Your task to perform on an android device: delete location history Image 0: 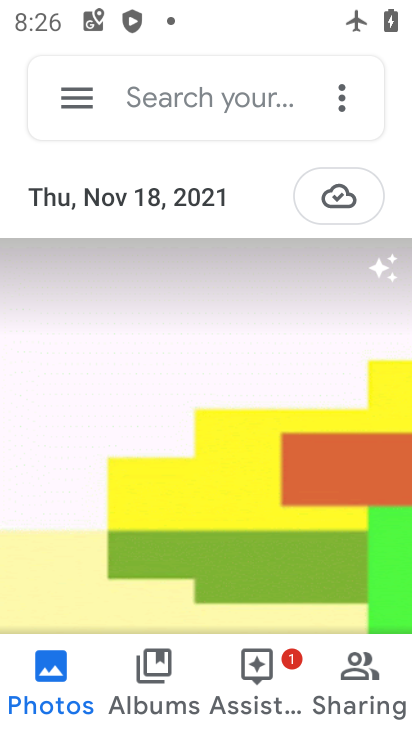
Step 0: press home button
Your task to perform on an android device: delete location history Image 1: 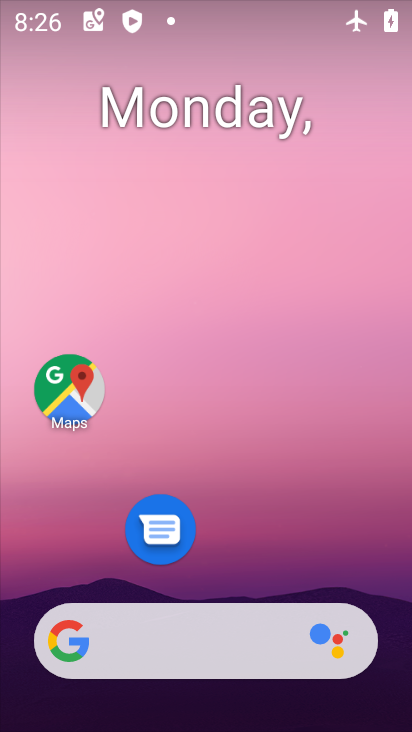
Step 1: click (81, 412)
Your task to perform on an android device: delete location history Image 2: 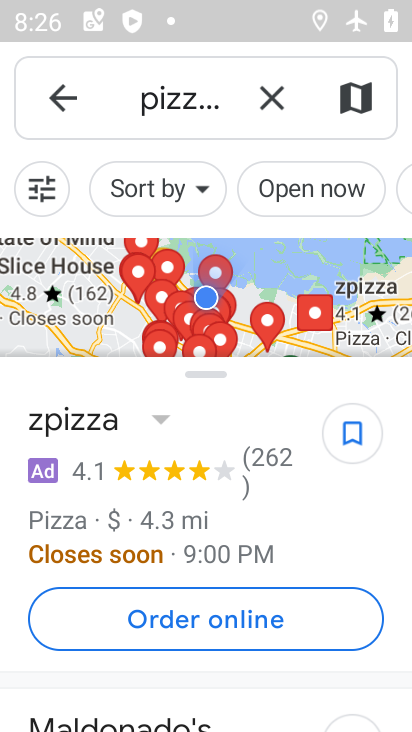
Step 2: click (52, 112)
Your task to perform on an android device: delete location history Image 3: 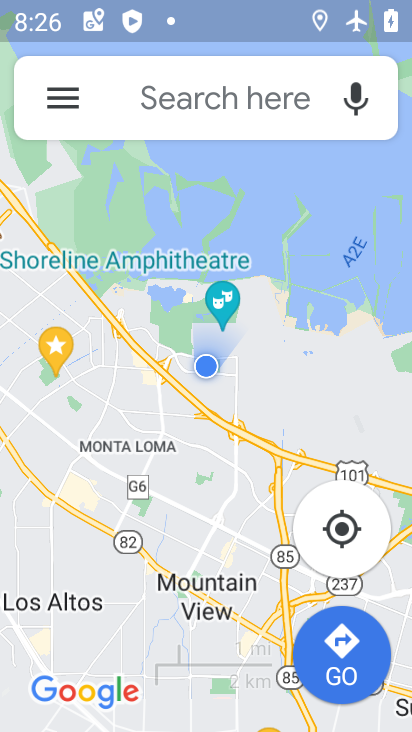
Step 3: click (52, 112)
Your task to perform on an android device: delete location history Image 4: 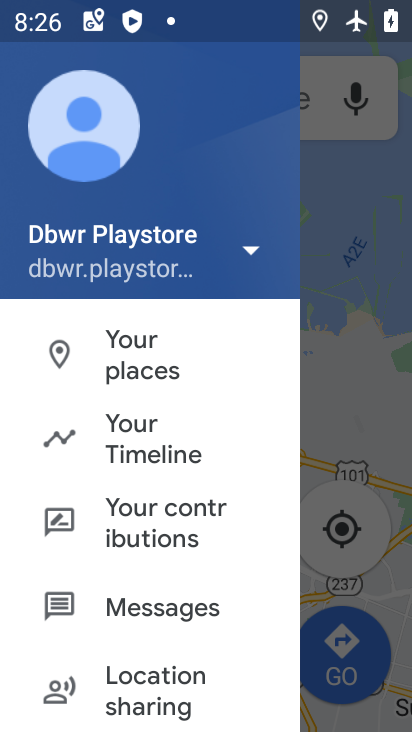
Step 4: click (134, 425)
Your task to perform on an android device: delete location history Image 5: 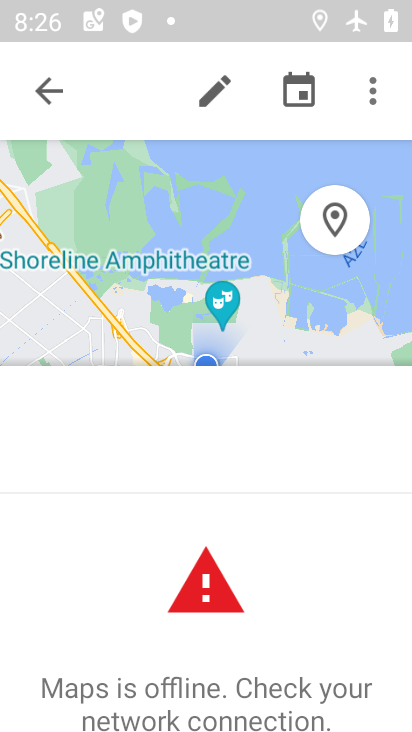
Step 5: click (375, 91)
Your task to perform on an android device: delete location history Image 6: 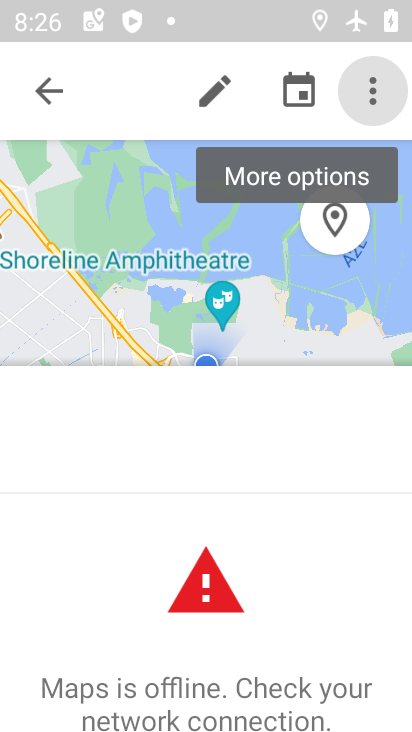
Step 6: click (375, 91)
Your task to perform on an android device: delete location history Image 7: 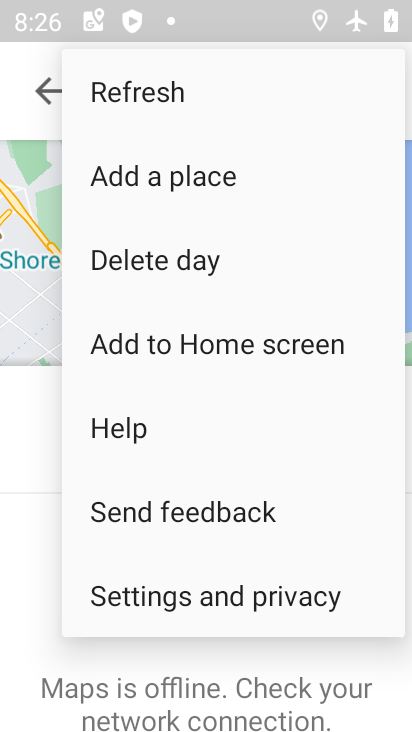
Step 7: drag from (201, 555) to (268, 204)
Your task to perform on an android device: delete location history Image 8: 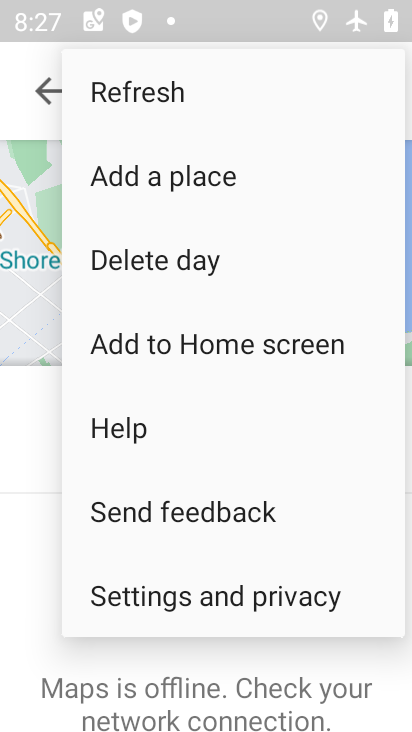
Step 8: click (161, 574)
Your task to perform on an android device: delete location history Image 9: 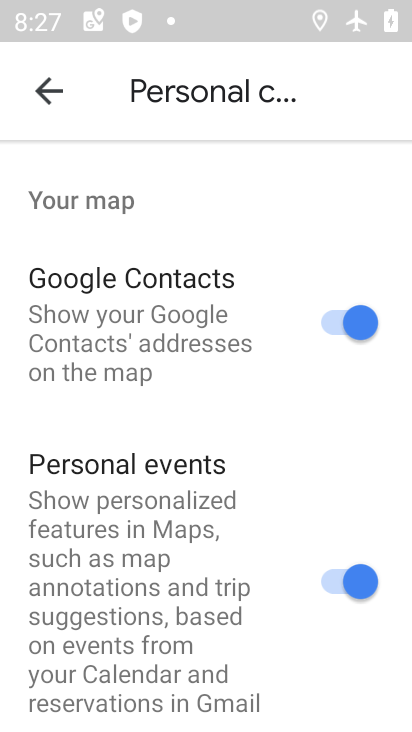
Step 9: drag from (161, 626) to (234, 227)
Your task to perform on an android device: delete location history Image 10: 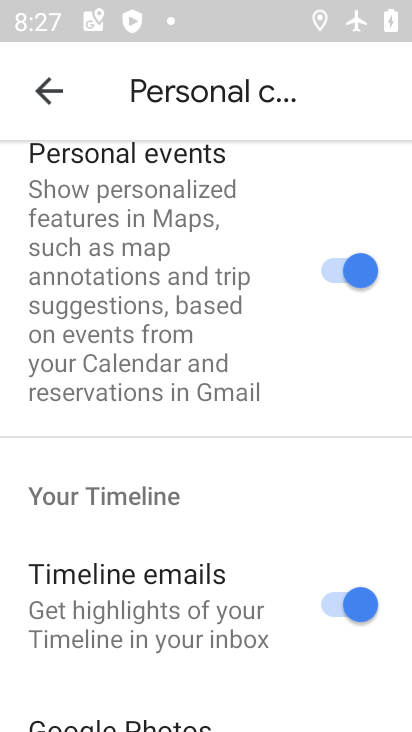
Step 10: drag from (223, 625) to (229, 188)
Your task to perform on an android device: delete location history Image 11: 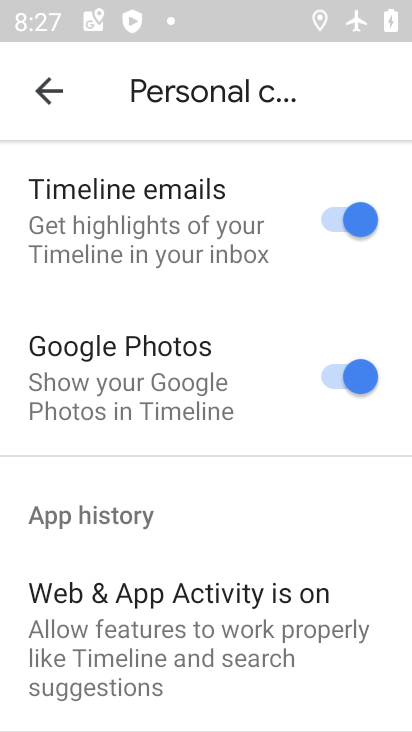
Step 11: drag from (217, 564) to (241, 223)
Your task to perform on an android device: delete location history Image 12: 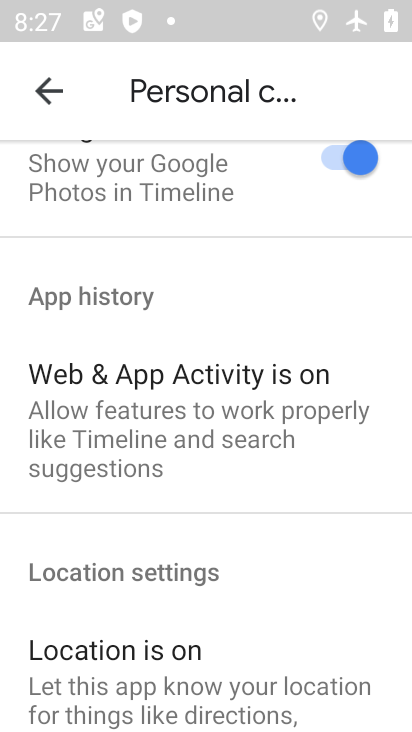
Step 12: drag from (223, 684) to (233, 265)
Your task to perform on an android device: delete location history Image 13: 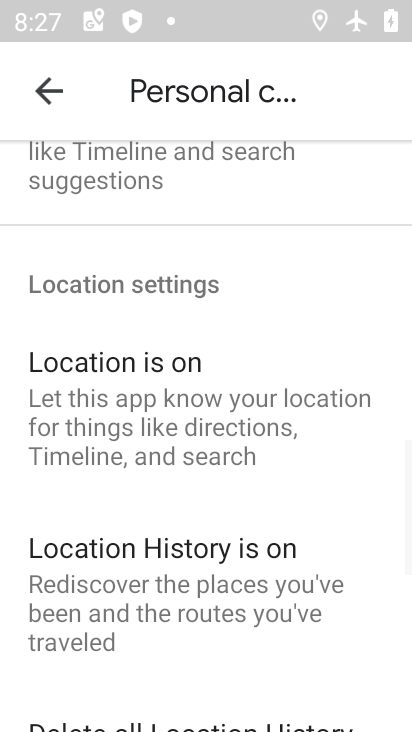
Step 13: drag from (206, 671) to (218, 383)
Your task to perform on an android device: delete location history Image 14: 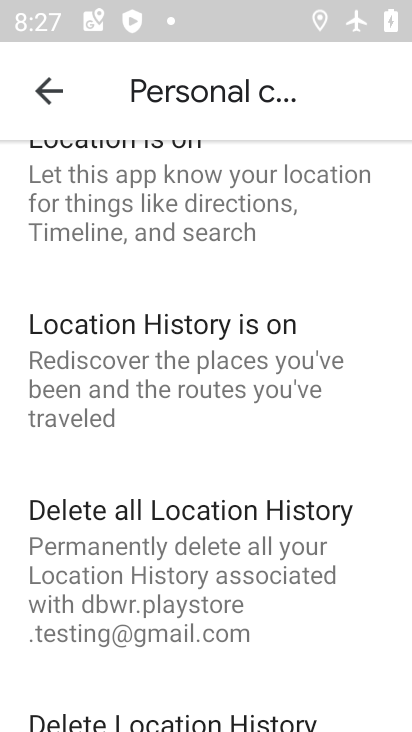
Step 14: click (199, 560)
Your task to perform on an android device: delete location history Image 15: 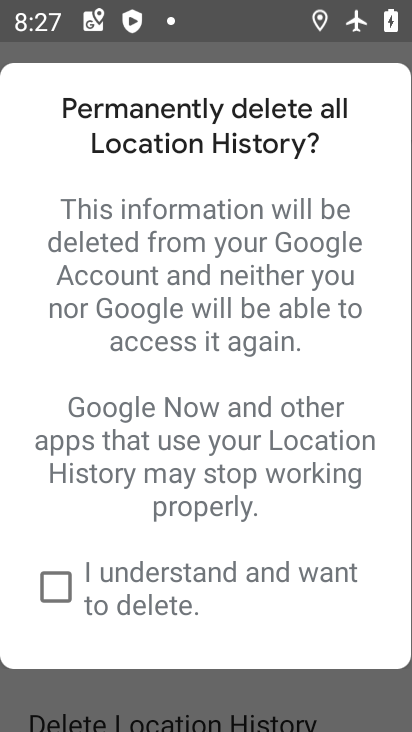
Step 15: click (135, 583)
Your task to perform on an android device: delete location history Image 16: 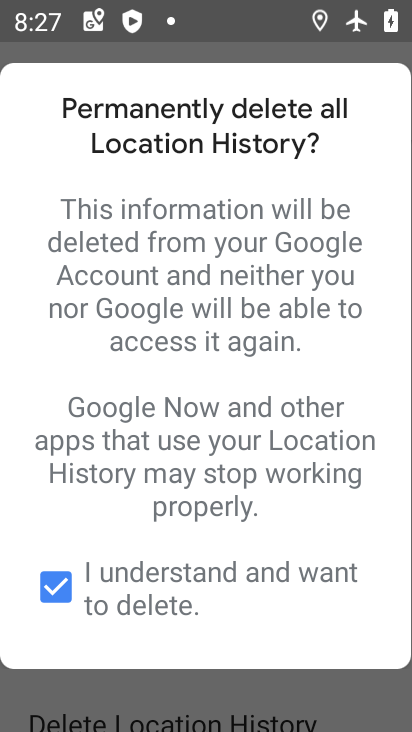
Step 16: drag from (218, 625) to (264, 296)
Your task to perform on an android device: delete location history Image 17: 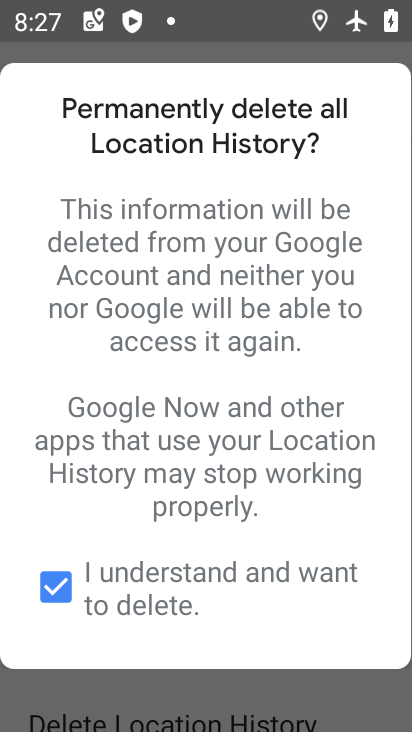
Step 17: click (88, 661)
Your task to perform on an android device: delete location history Image 18: 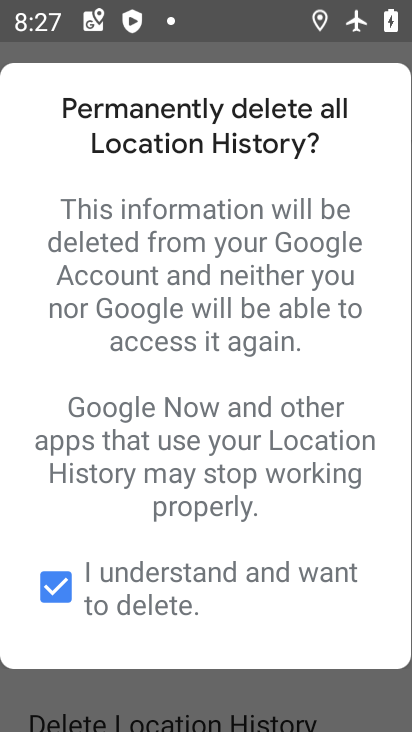
Step 18: click (87, 673)
Your task to perform on an android device: delete location history Image 19: 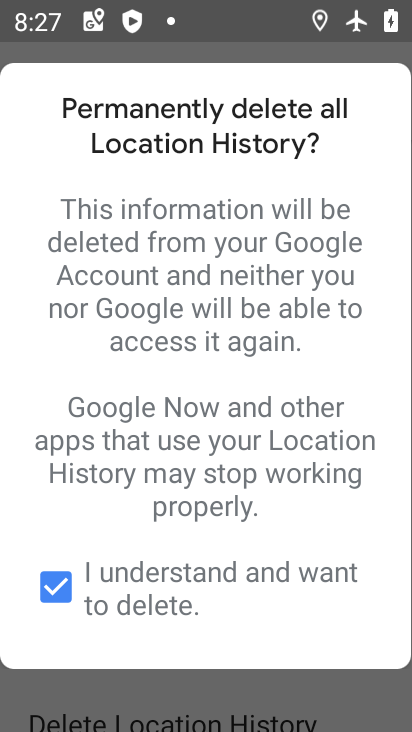
Step 19: click (323, 676)
Your task to perform on an android device: delete location history Image 20: 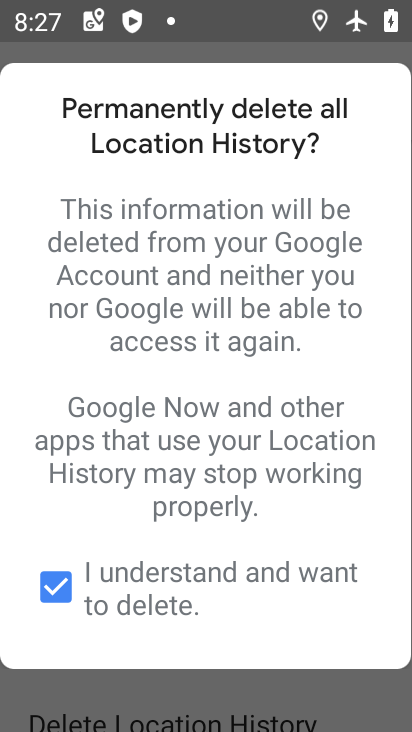
Step 20: click (277, 681)
Your task to perform on an android device: delete location history Image 21: 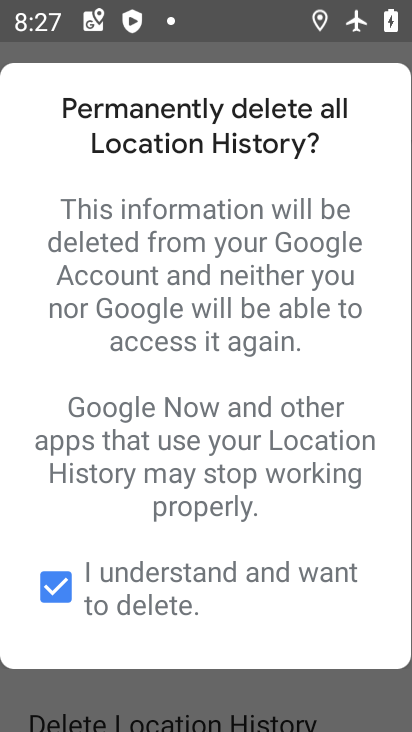
Step 21: click (174, 680)
Your task to perform on an android device: delete location history Image 22: 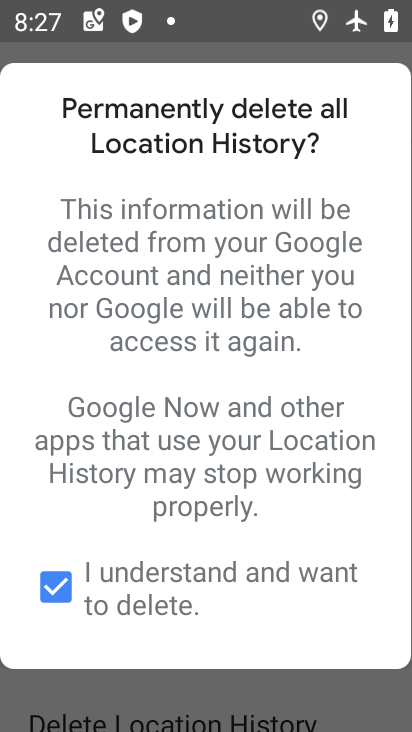
Step 22: click (71, 672)
Your task to perform on an android device: delete location history Image 23: 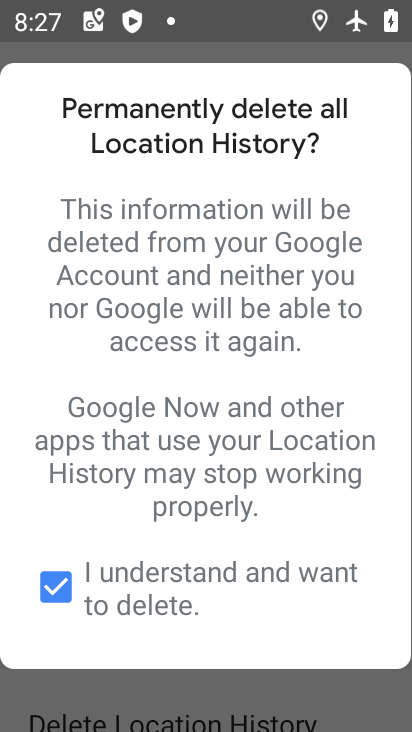
Step 23: click (26, 662)
Your task to perform on an android device: delete location history Image 24: 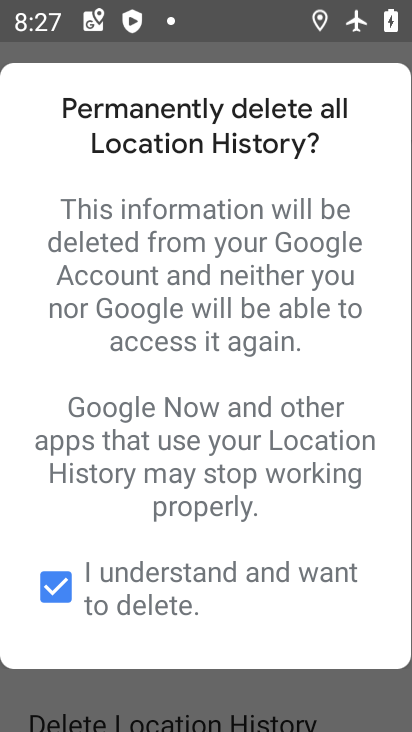
Step 24: drag from (219, 663) to (235, 363)
Your task to perform on an android device: delete location history Image 25: 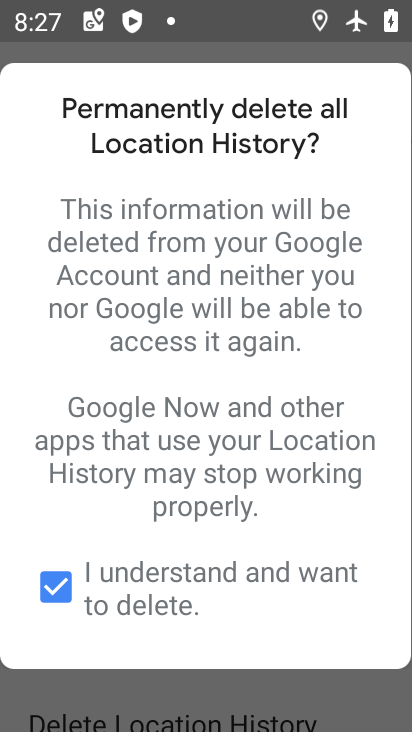
Step 25: click (340, 686)
Your task to perform on an android device: delete location history Image 26: 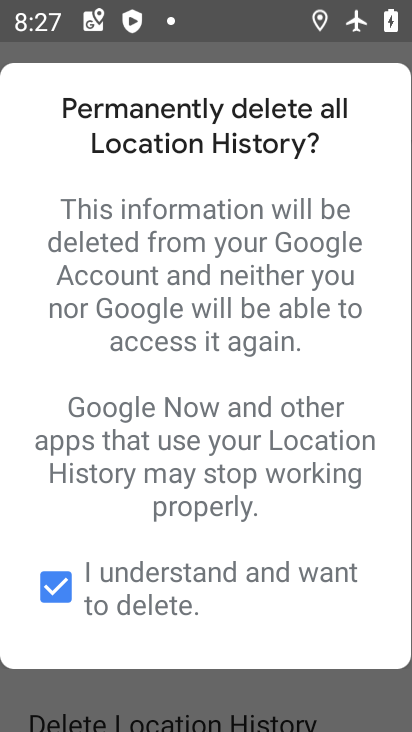
Step 26: click (368, 648)
Your task to perform on an android device: delete location history Image 27: 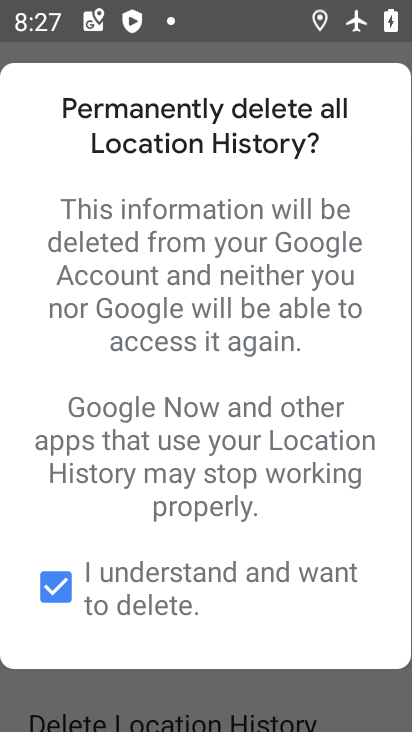
Step 27: click (345, 644)
Your task to perform on an android device: delete location history Image 28: 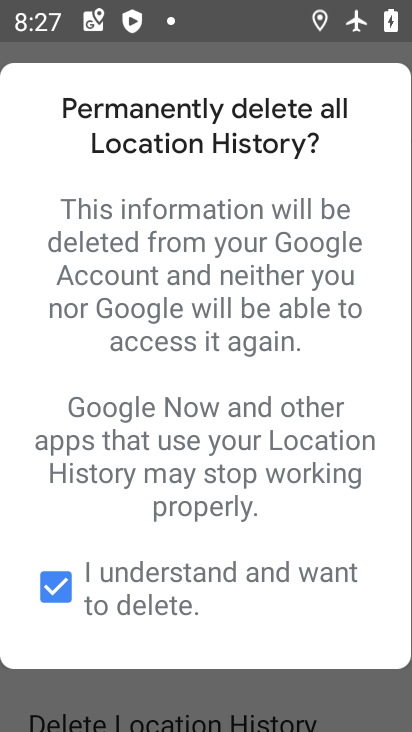
Step 28: click (281, 665)
Your task to perform on an android device: delete location history Image 29: 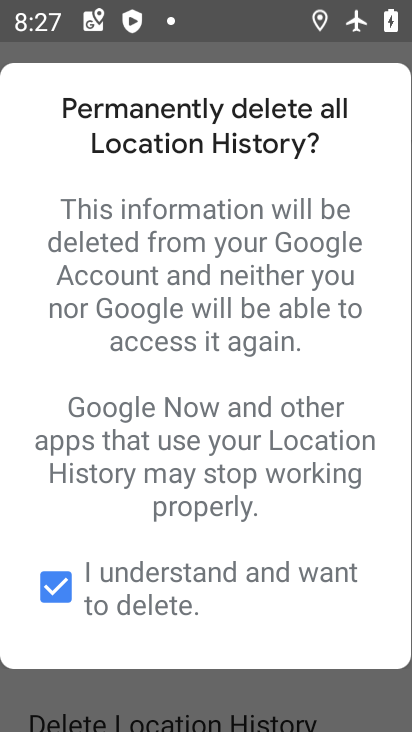
Step 29: click (235, 658)
Your task to perform on an android device: delete location history Image 30: 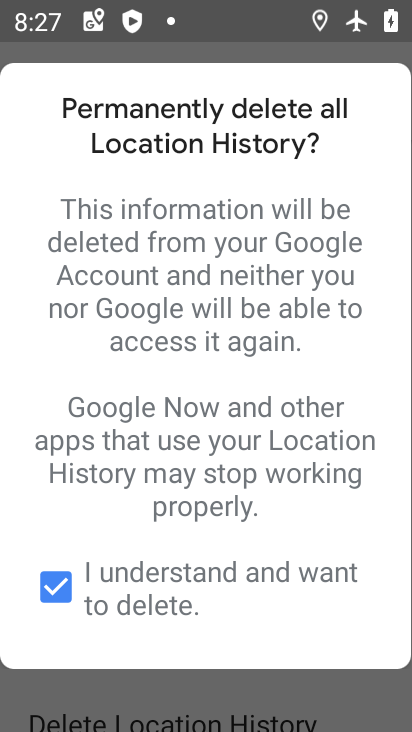
Step 30: click (152, 655)
Your task to perform on an android device: delete location history Image 31: 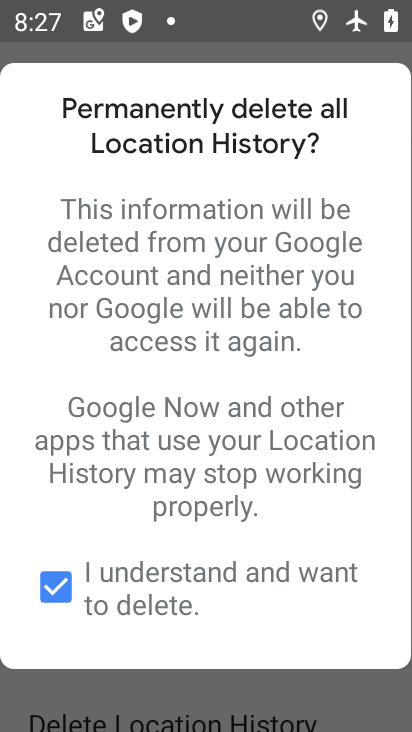
Step 31: click (77, 655)
Your task to perform on an android device: delete location history Image 32: 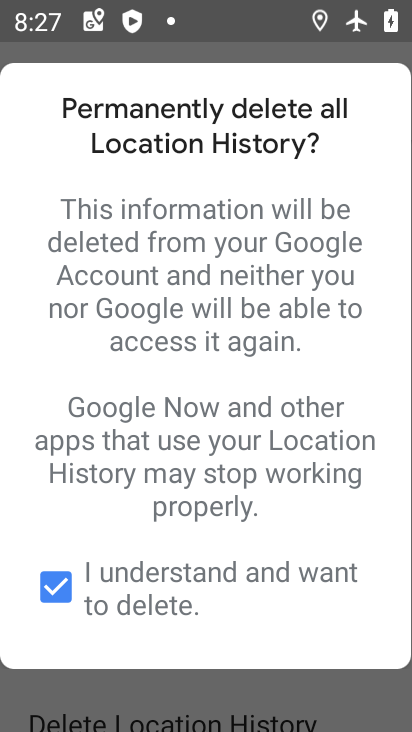
Step 32: click (9, 655)
Your task to perform on an android device: delete location history Image 33: 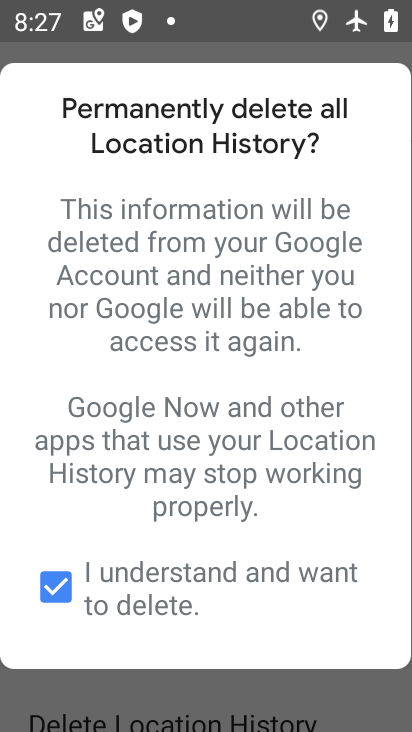
Step 33: click (42, 665)
Your task to perform on an android device: delete location history Image 34: 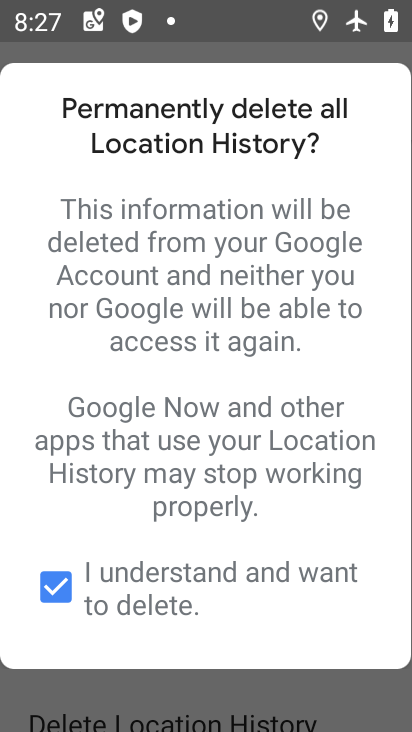
Step 34: click (61, 665)
Your task to perform on an android device: delete location history Image 35: 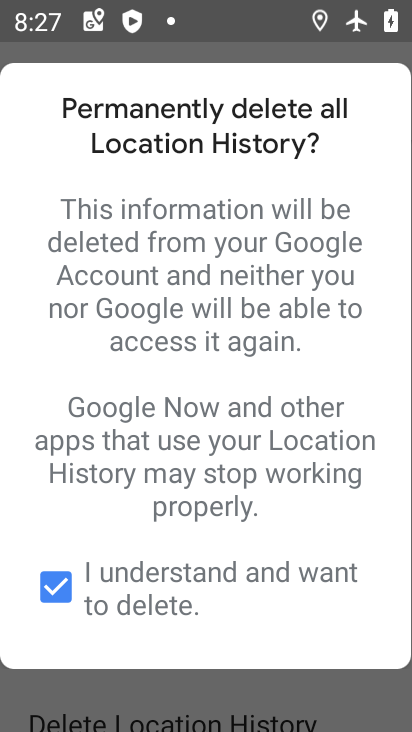
Step 35: click (61, 683)
Your task to perform on an android device: delete location history Image 36: 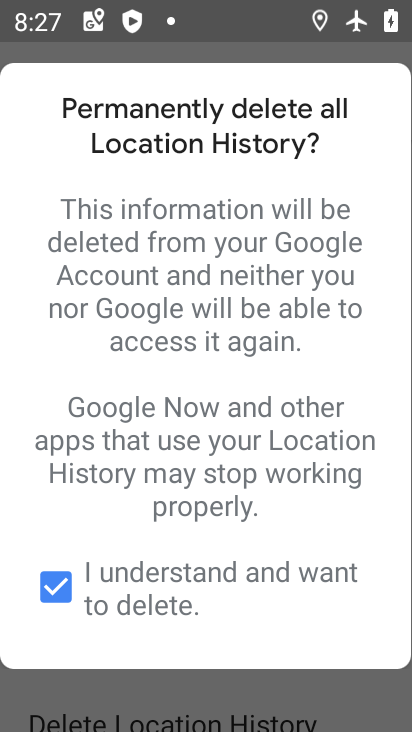
Step 36: click (76, 700)
Your task to perform on an android device: delete location history Image 37: 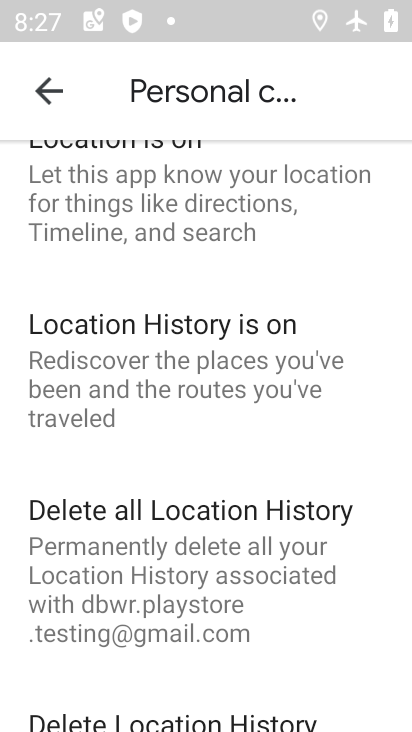
Step 37: click (89, 700)
Your task to perform on an android device: delete location history Image 38: 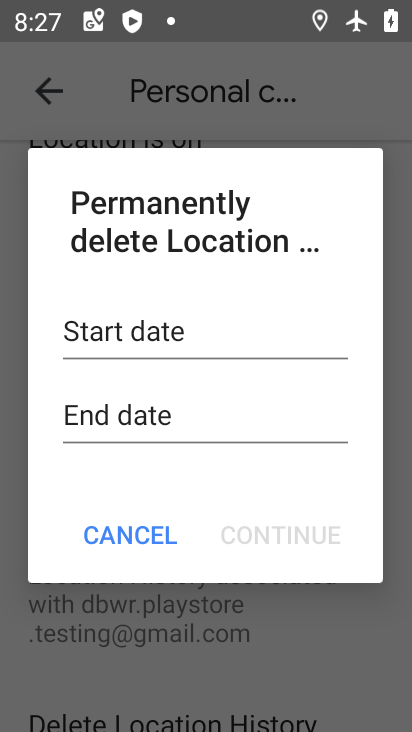
Step 38: click (144, 549)
Your task to perform on an android device: delete location history Image 39: 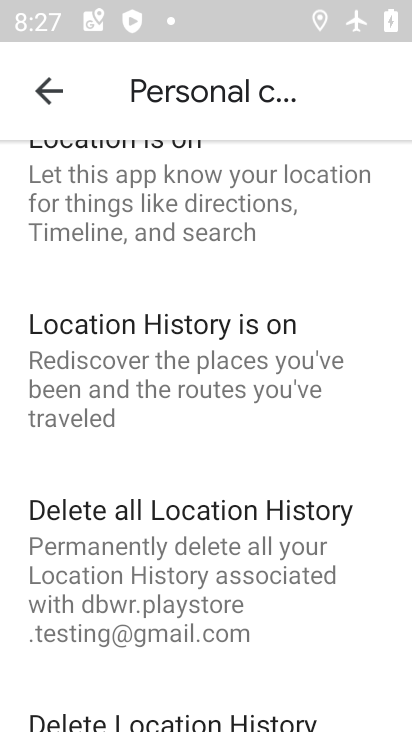
Step 39: click (144, 549)
Your task to perform on an android device: delete location history Image 40: 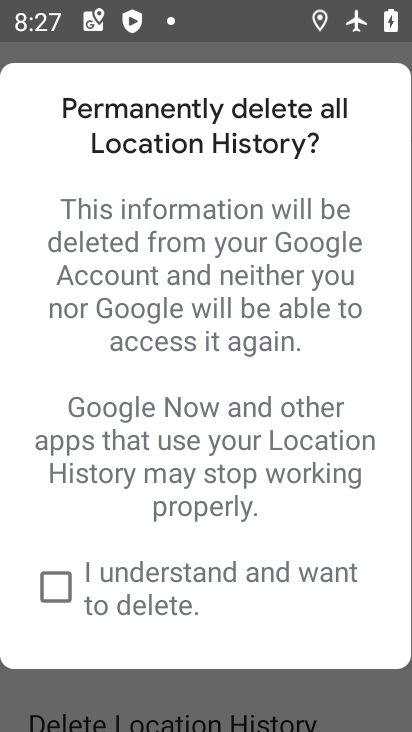
Step 40: drag from (186, 551) to (219, 198)
Your task to perform on an android device: delete location history Image 41: 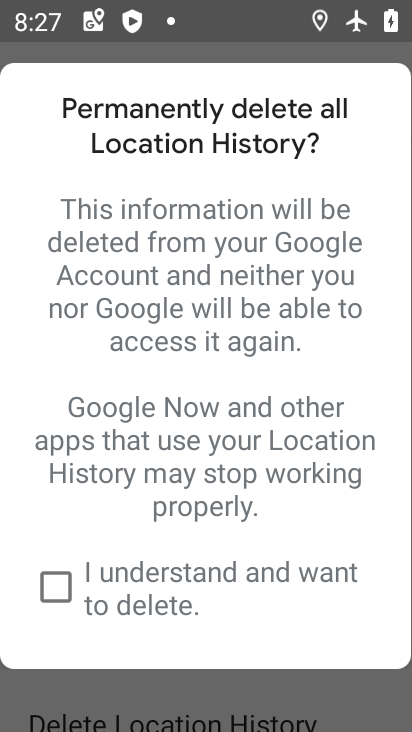
Step 41: click (58, 588)
Your task to perform on an android device: delete location history Image 42: 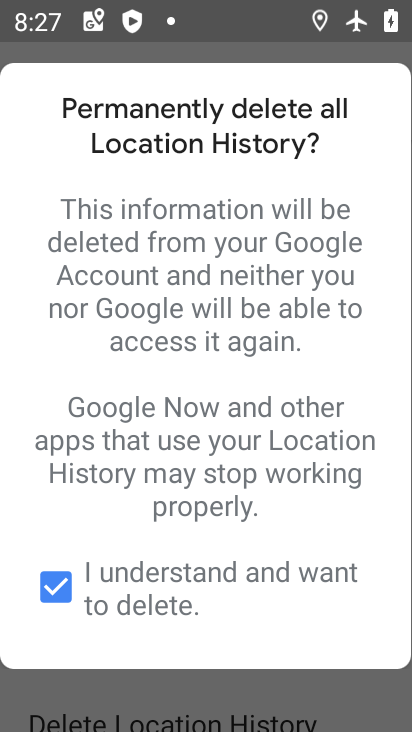
Step 42: task complete